Your task to perform on an android device: turn off notifications in google photos Image 0: 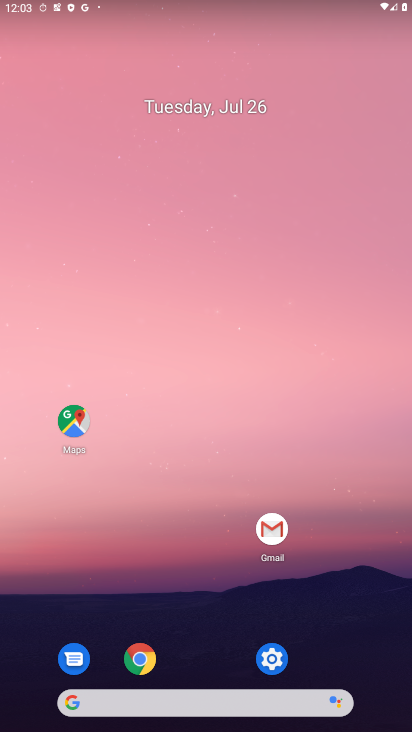
Step 0: drag from (248, 722) to (223, 254)
Your task to perform on an android device: turn off notifications in google photos Image 1: 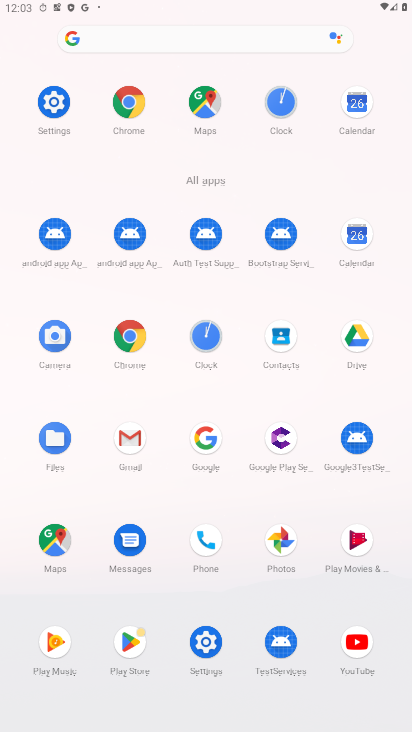
Step 1: click (295, 537)
Your task to perform on an android device: turn off notifications in google photos Image 2: 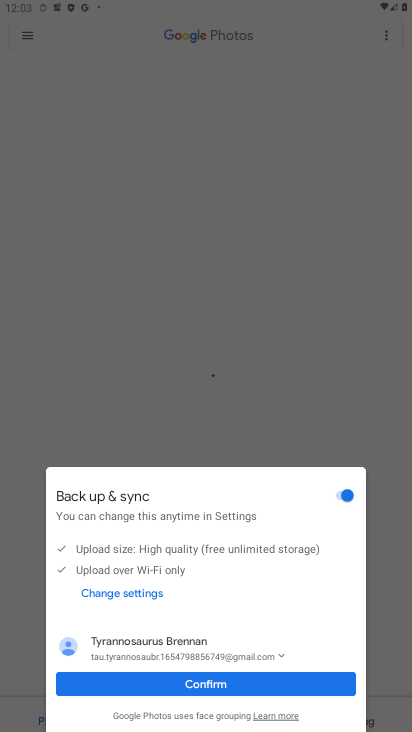
Step 2: click (213, 692)
Your task to perform on an android device: turn off notifications in google photos Image 3: 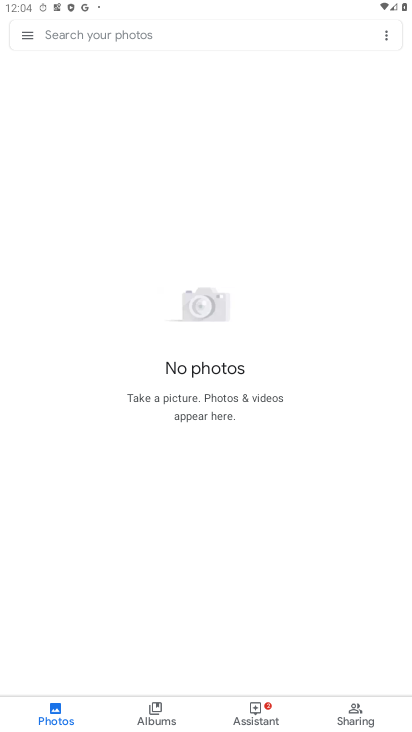
Step 3: click (32, 40)
Your task to perform on an android device: turn off notifications in google photos Image 4: 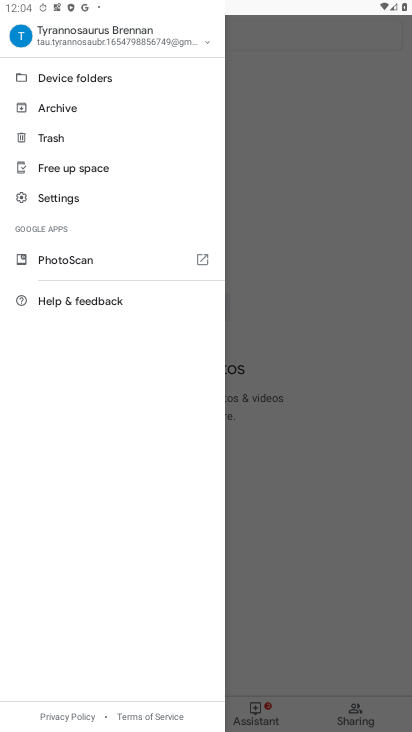
Step 4: click (54, 197)
Your task to perform on an android device: turn off notifications in google photos Image 5: 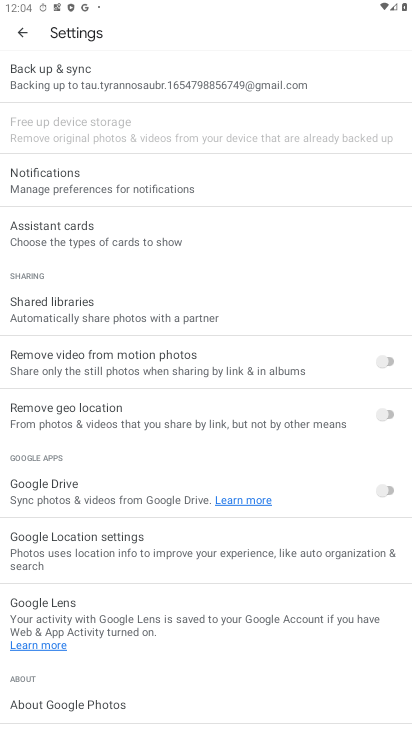
Step 5: click (54, 196)
Your task to perform on an android device: turn off notifications in google photos Image 6: 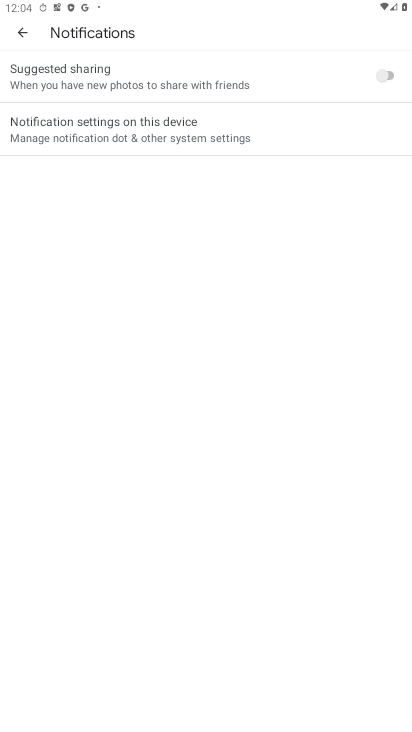
Step 6: click (68, 113)
Your task to perform on an android device: turn off notifications in google photos Image 7: 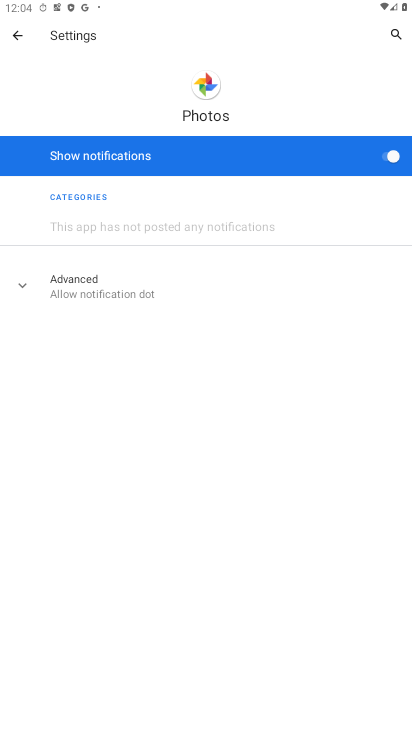
Step 7: click (384, 162)
Your task to perform on an android device: turn off notifications in google photos Image 8: 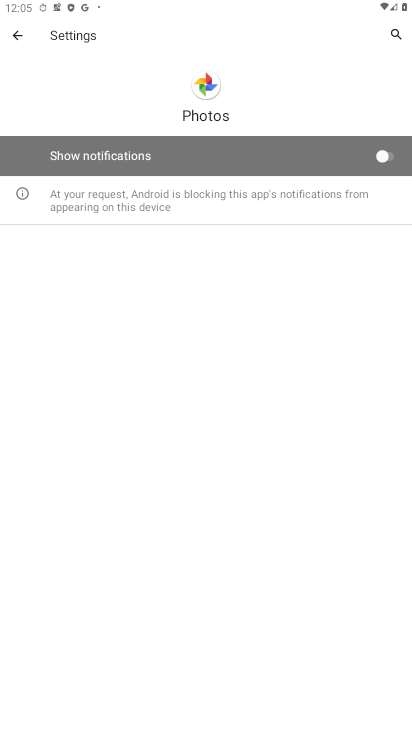
Step 8: task complete